Your task to perform on an android device: turn on javascript in the chrome app Image 0: 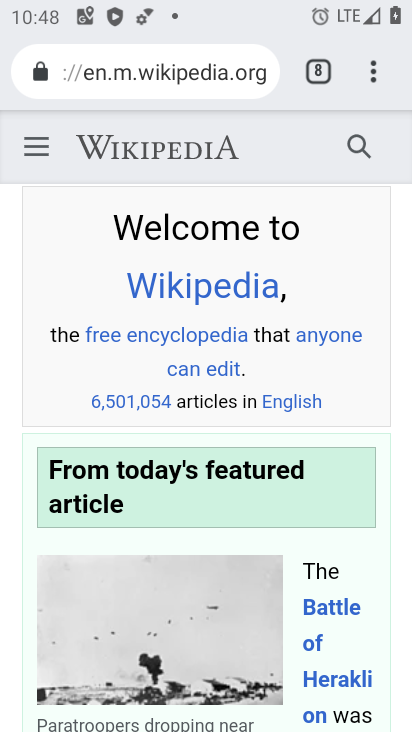
Step 0: drag from (376, 72) to (138, 580)
Your task to perform on an android device: turn on javascript in the chrome app Image 1: 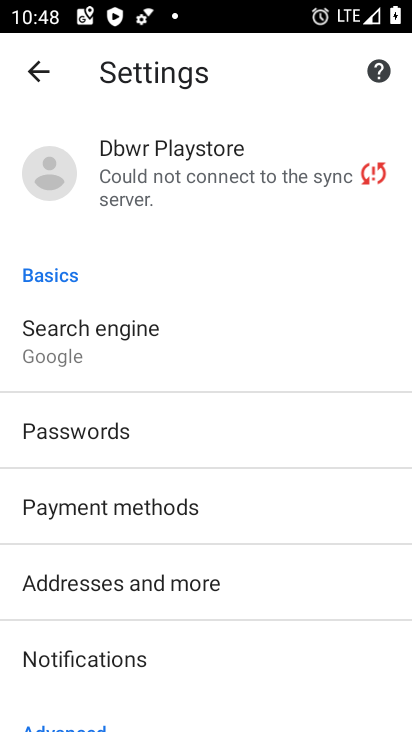
Step 1: drag from (175, 601) to (203, 298)
Your task to perform on an android device: turn on javascript in the chrome app Image 2: 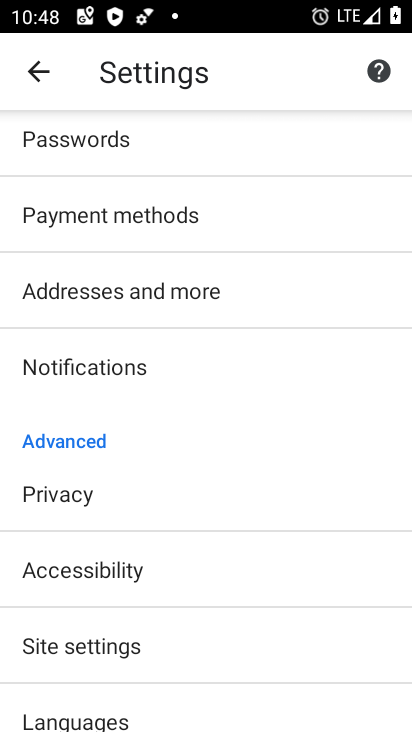
Step 2: click (175, 633)
Your task to perform on an android device: turn on javascript in the chrome app Image 3: 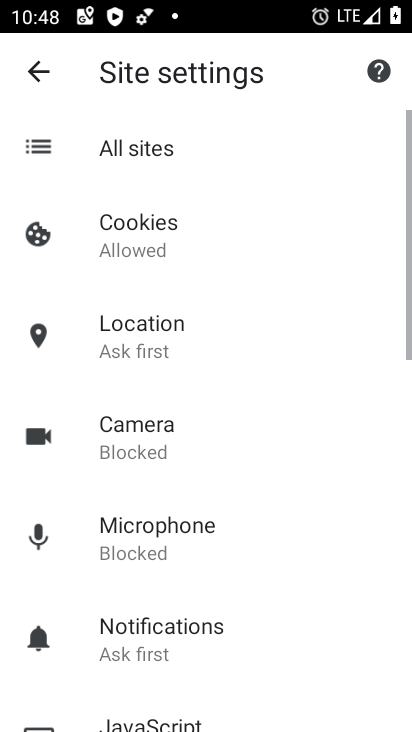
Step 3: drag from (182, 627) to (191, 414)
Your task to perform on an android device: turn on javascript in the chrome app Image 4: 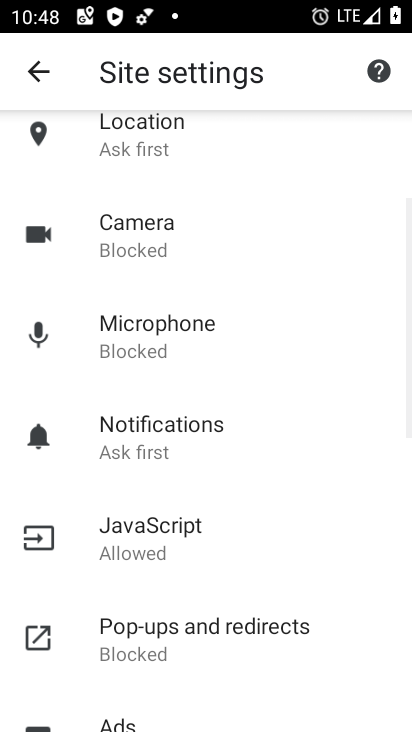
Step 4: click (161, 545)
Your task to perform on an android device: turn on javascript in the chrome app Image 5: 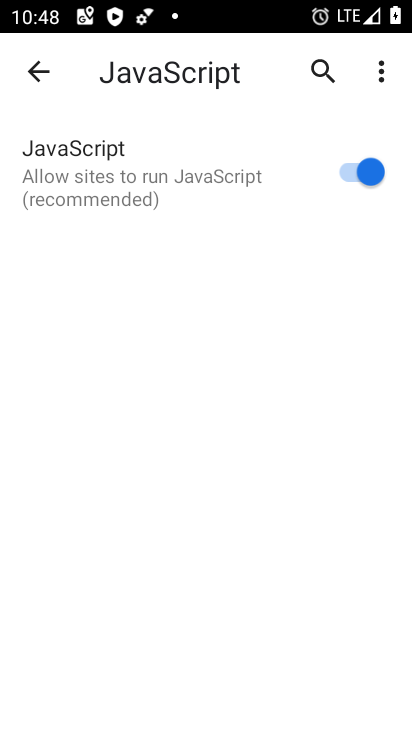
Step 5: task complete